Your task to perform on an android device: change your default location settings in chrome Image 0: 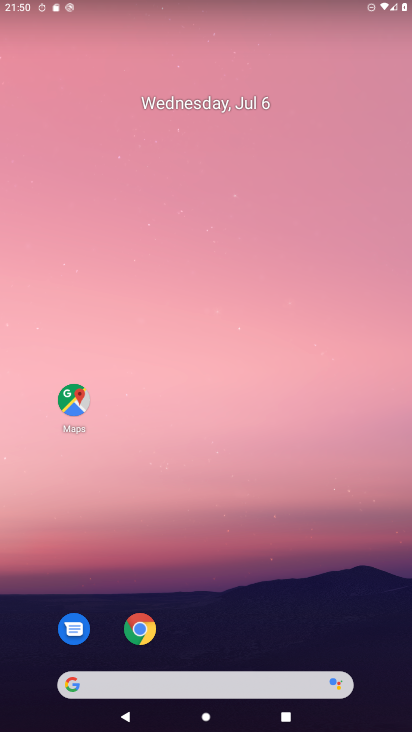
Step 0: click (135, 625)
Your task to perform on an android device: change your default location settings in chrome Image 1: 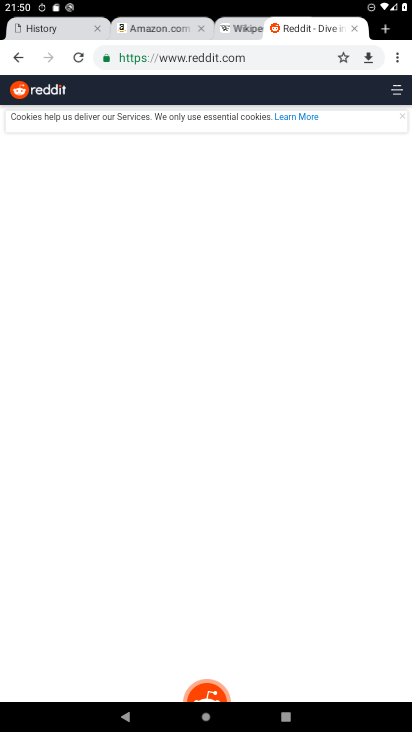
Step 1: click (398, 61)
Your task to perform on an android device: change your default location settings in chrome Image 2: 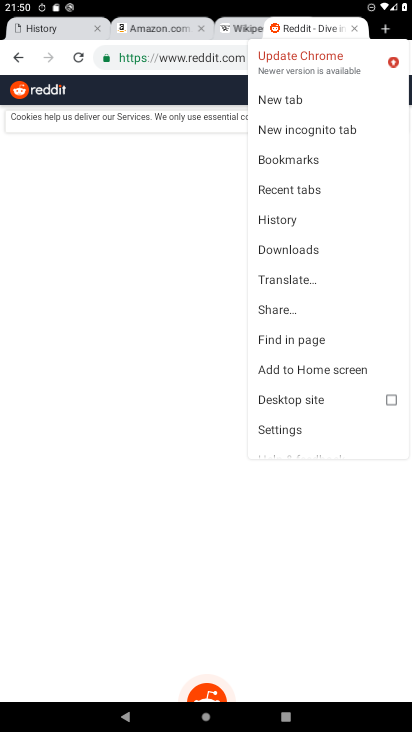
Step 2: click (278, 431)
Your task to perform on an android device: change your default location settings in chrome Image 3: 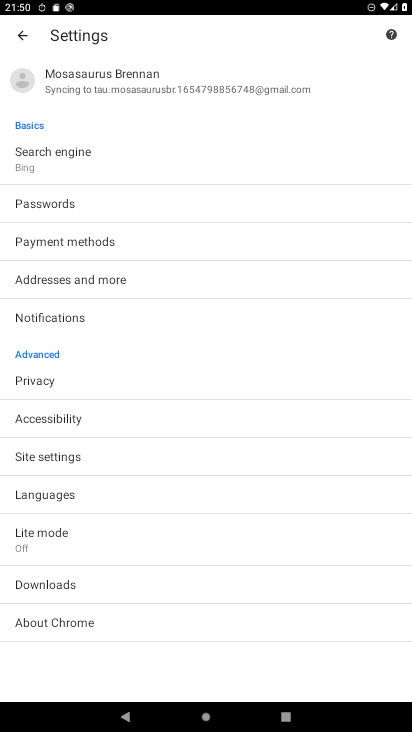
Step 3: click (53, 455)
Your task to perform on an android device: change your default location settings in chrome Image 4: 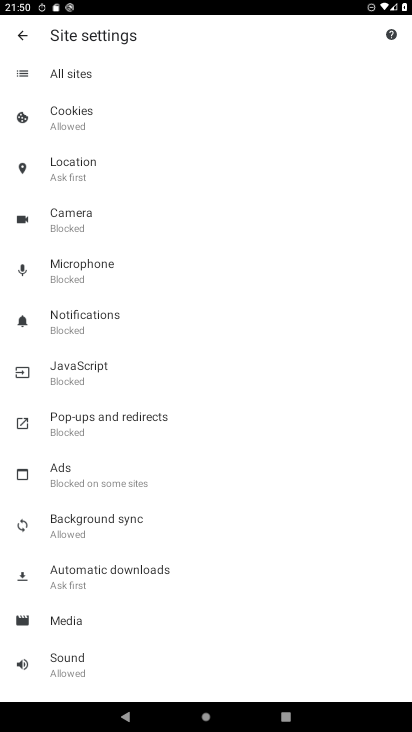
Step 4: click (64, 170)
Your task to perform on an android device: change your default location settings in chrome Image 5: 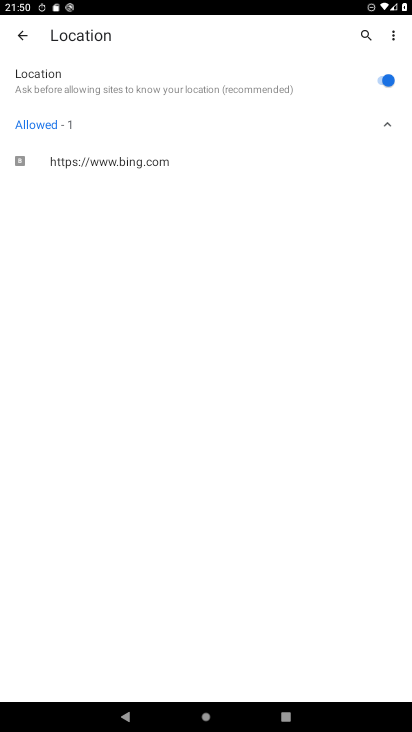
Step 5: click (380, 77)
Your task to perform on an android device: change your default location settings in chrome Image 6: 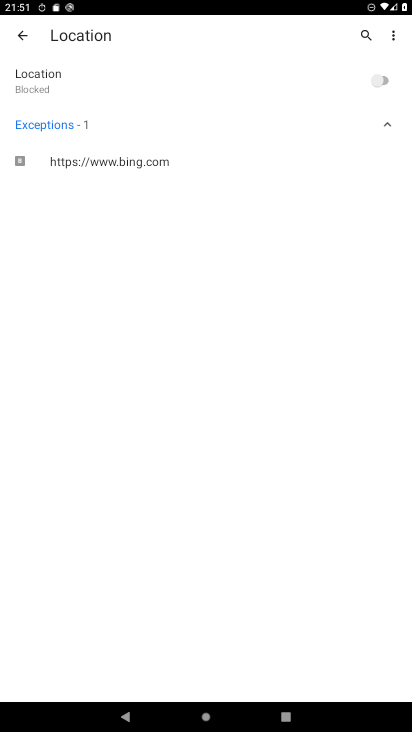
Step 6: task complete